Your task to perform on an android device: turn off javascript in the chrome app Image 0: 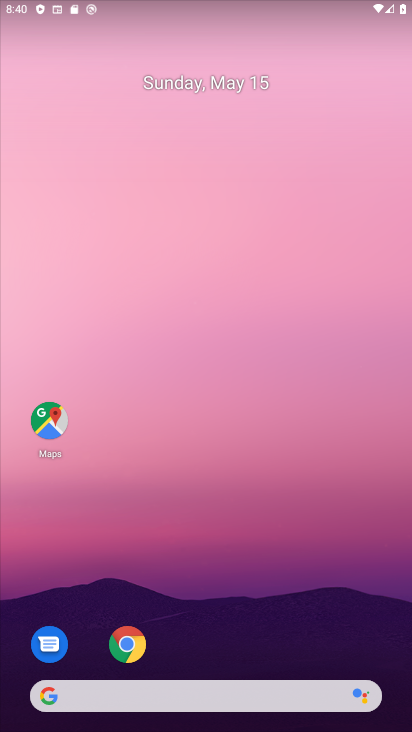
Step 0: click (131, 639)
Your task to perform on an android device: turn off javascript in the chrome app Image 1: 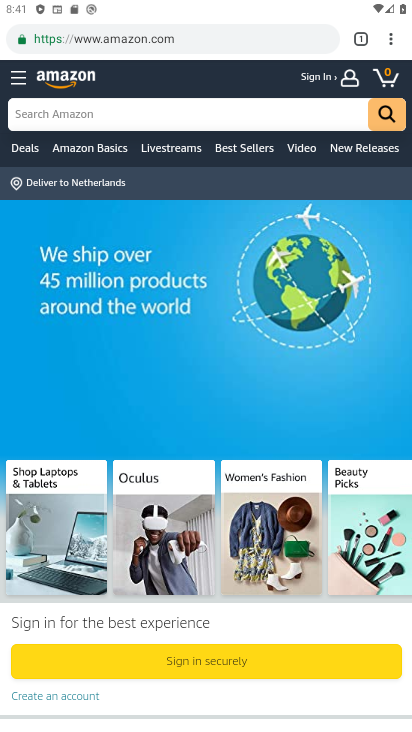
Step 1: click (395, 49)
Your task to perform on an android device: turn off javascript in the chrome app Image 2: 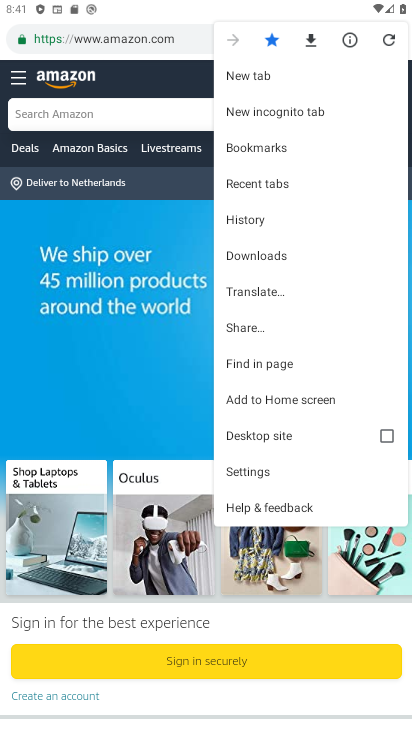
Step 2: click (261, 473)
Your task to perform on an android device: turn off javascript in the chrome app Image 3: 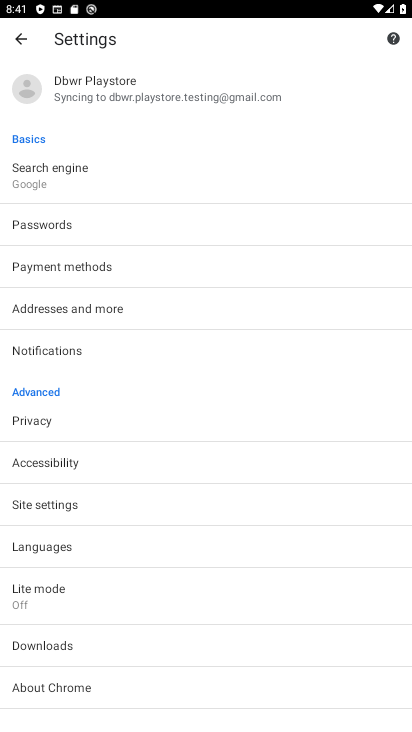
Step 3: drag from (261, 469) to (232, 105)
Your task to perform on an android device: turn off javascript in the chrome app Image 4: 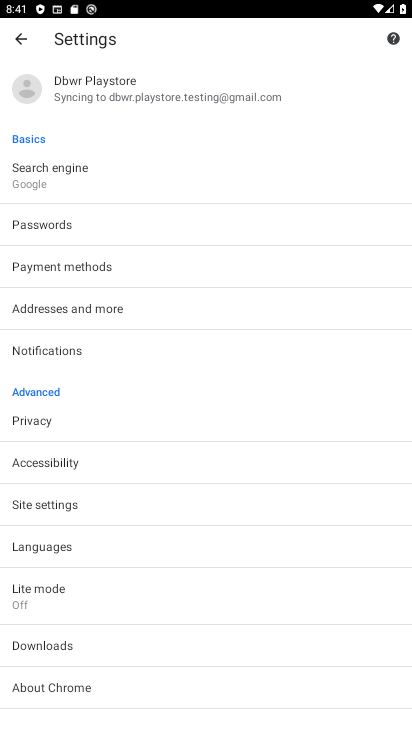
Step 4: click (40, 501)
Your task to perform on an android device: turn off javascript in the chrome app Image 5: 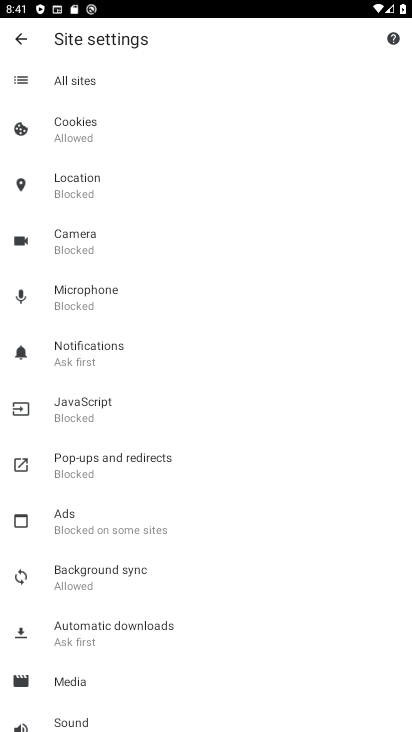
Step 5: click (93, 417)
Your task to perform on an android device: turn off javascript in the chrome app Image 6: 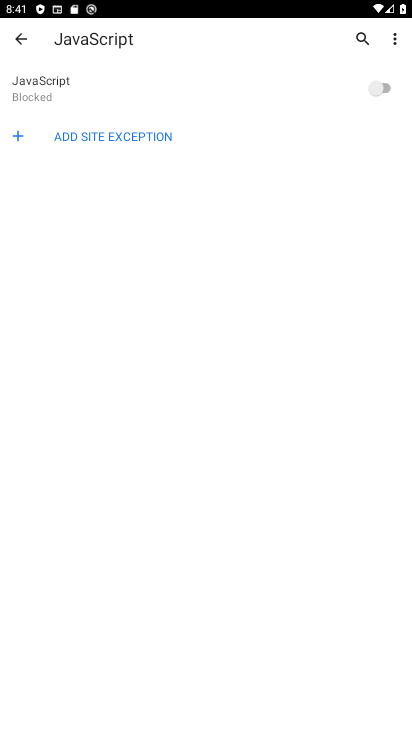
Step 6: task complete